Your task to perform on an android device: turn off airplane mode Image 0: 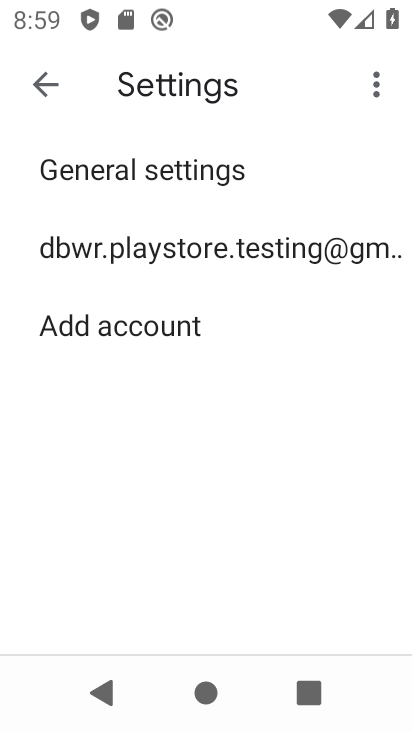
Step 0: press home button
Your task to perform on an android device: turn off airplane mode Image 1: 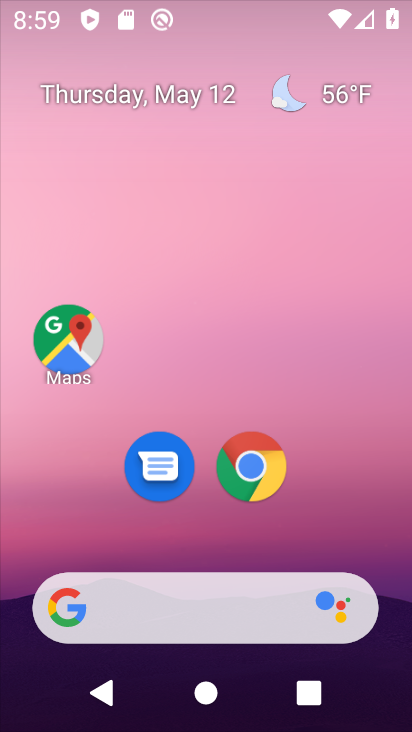
Step 1: drag from (294, 485) to (297, 134)
Your task to perform on an android device: turn off airplane mode Image 2: 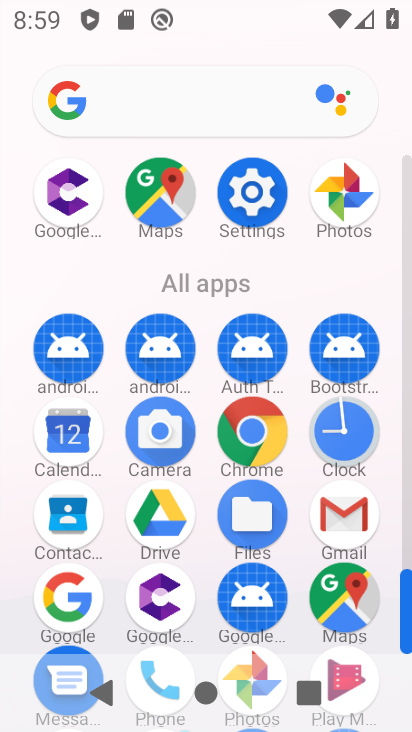
Step 2: click (246, 200)
Your task to perform on an android device: turn off airplane mode Image 3: 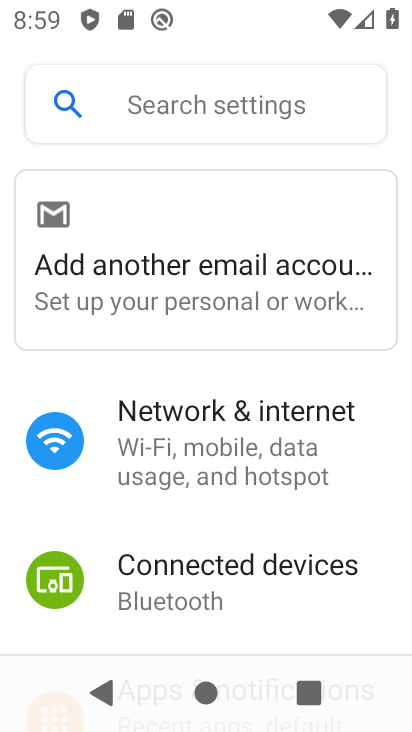
Step 3: click (222, 415)
Your task to perform on an android device: turn off airplane mode Image 4: 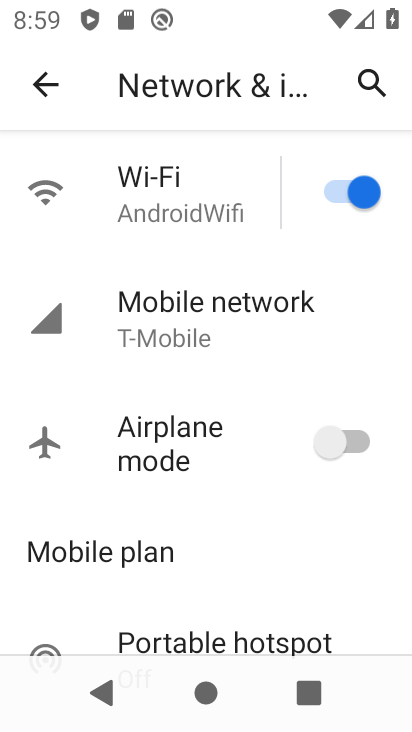
Step 4: task complete